Your task to perform on an android device: What's the latest technology news? Image 0: 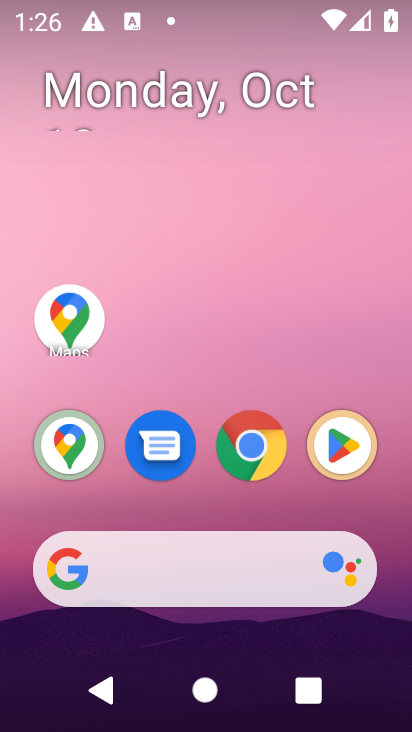
Step 0: click (65, 580)
Your task to perform on an android device: What's the latest technology news? Image 1: 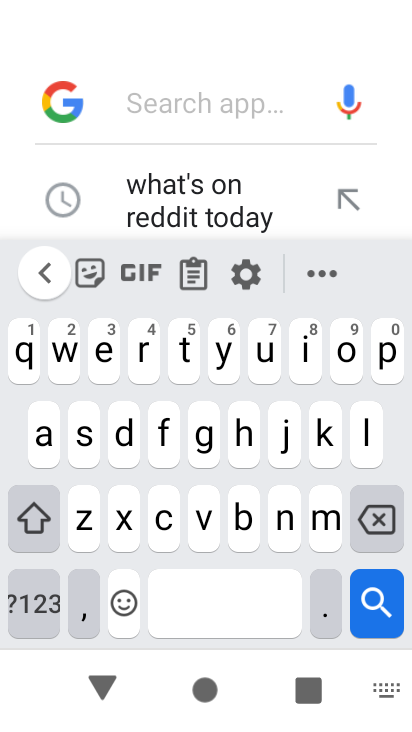
Step 1: type "whats the latest technology news ?"
Your task to perform on an android device: What's the latest technology news? Image 2: 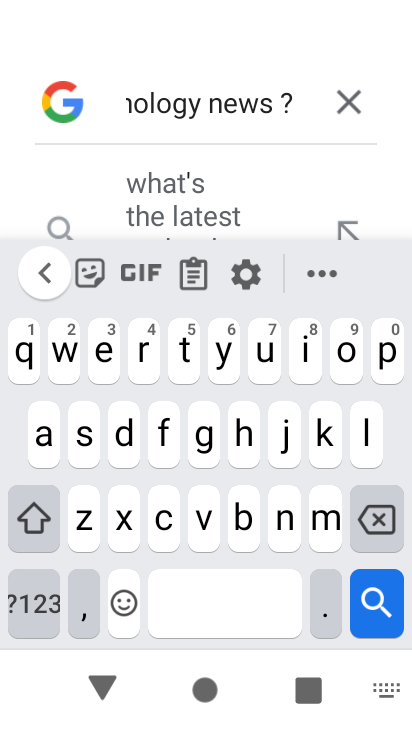
Step 2: click (247, 217)
Your task to perform on an android device: What's the latest technology news? Image 3: 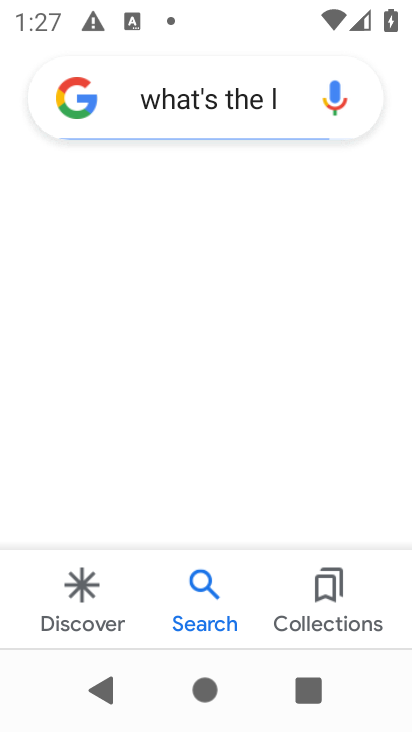
Step 3: task complete